Your task to perform on an android device: Search for vegetarian restaurants on Maps Image 0: 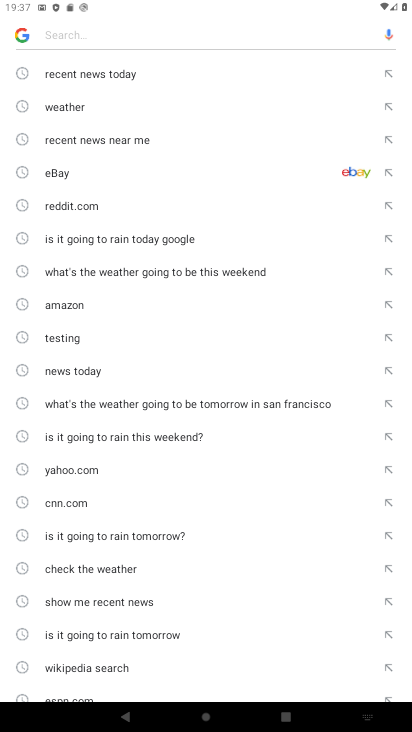
Step 0: press back button
Your task to perform on an android device: Search for vegetarian restaurants on Maps Image 1: 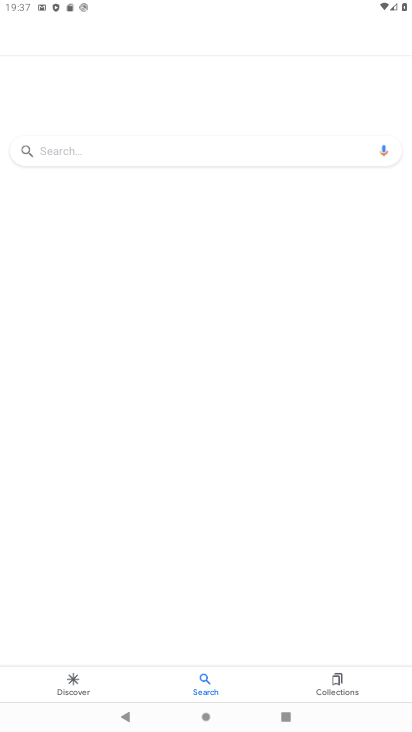
Step 1: press back button
Your task to perform on an android device: Search for vegetarian restaurants on Maps Image 2: 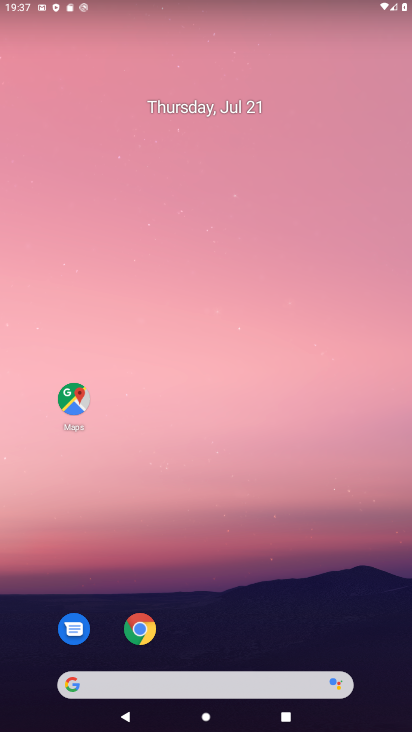
Step 2: click (55, 406)
Your task to perform on an android device: Search for vegetarian restaurants on Maps Image 3: 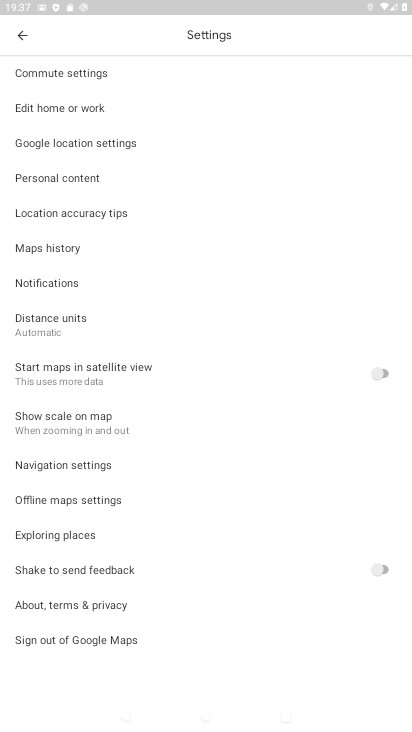
Step 3: click (13, 37)
Your task to perform on an android device: Search for vegetarian restaurants on Maps Image 4: 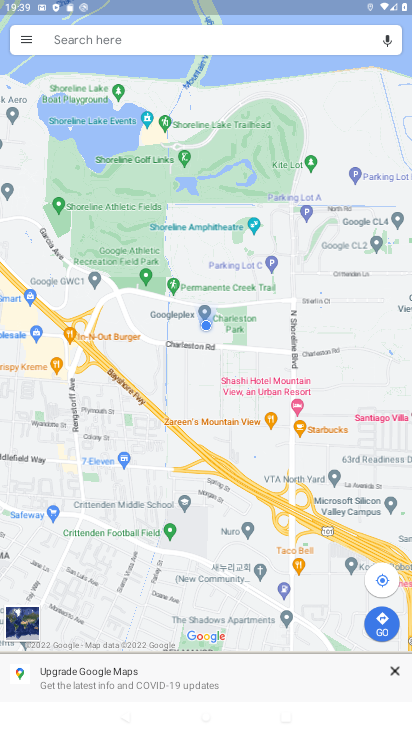
Step 4: click (262, 27)
Your task to perform on an android device: Search for vegetarian restaurants on Maps Image 5: 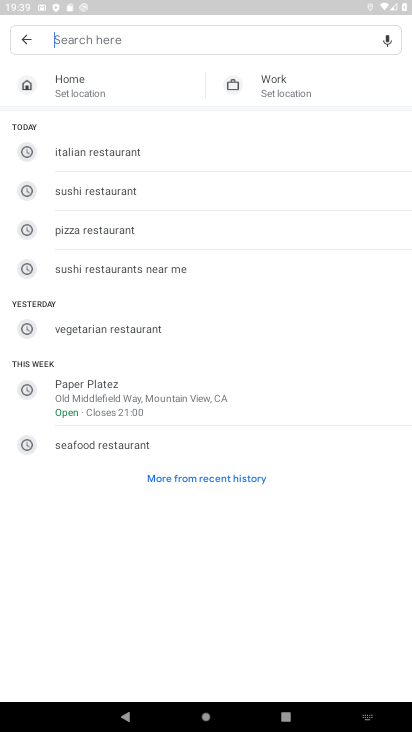
Step 5: click (134, 32)
Your task to perform on an android device: Search for vegetarian restaurants on Maps Image 6: 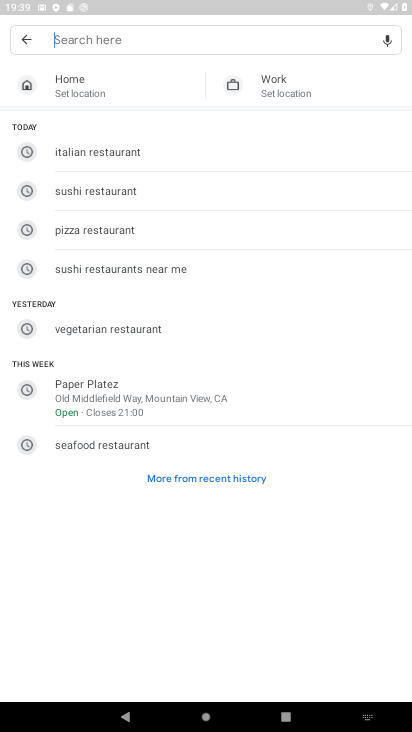
Step 6: type "vegetarian restaurants"
Your task to perform on an android device: Search for vegetarian restaurants on Maps Image 7: 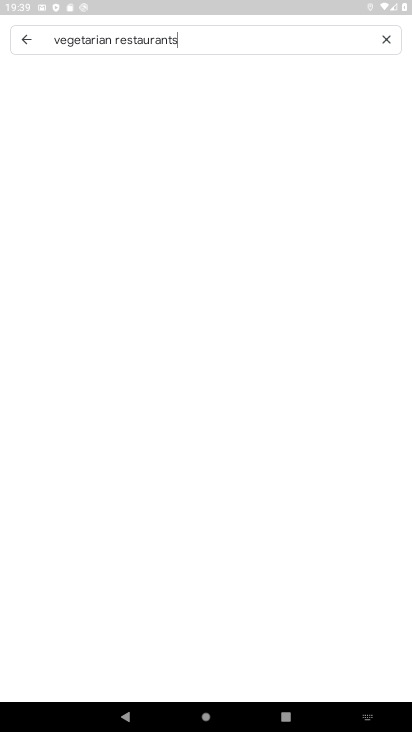
Step 7: type ""
Your task to perform on an android device: Search for vegetarian restaurants on Maps Image 8: 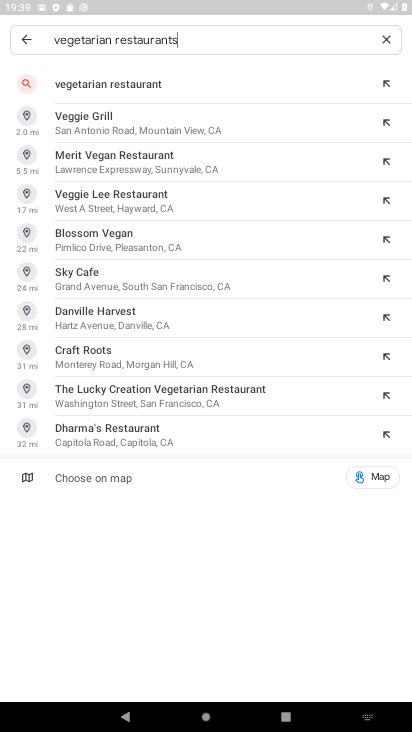
Step 8: click (215, 74)
Your task to perform on an android device: Search for vegetarian restaurants on Maps Image 9: 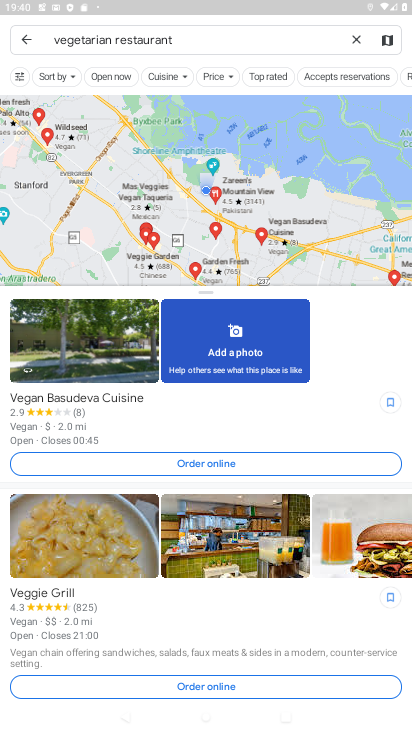
Step 9: task complete